Your task to perform on an android device: open a bookmark in the chrome app Image 0: 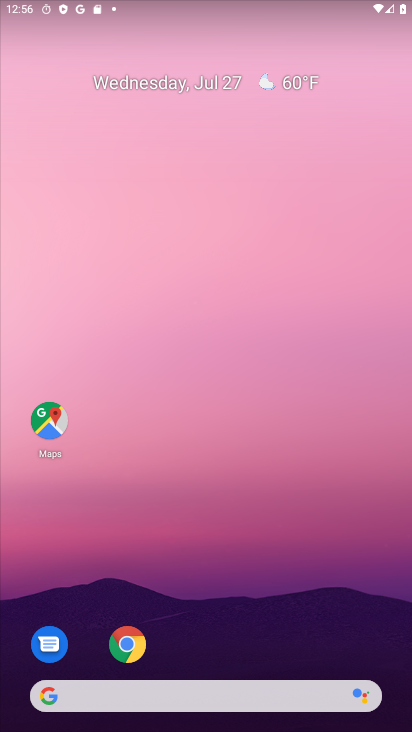
Step 0: drag from (196, 641) to (283, 212)
Your task to perform on an android device: open a bookmark in the chrome app Image 1: 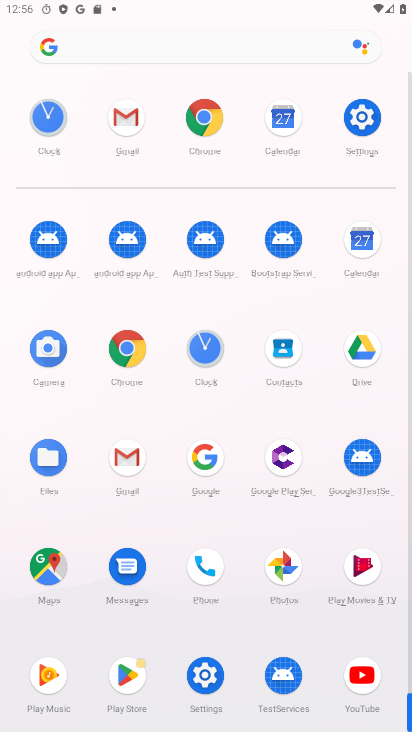
Step 1: click (243, 359)
Your task to perform on an android device: open a bookmark in the chrome app Image 2: 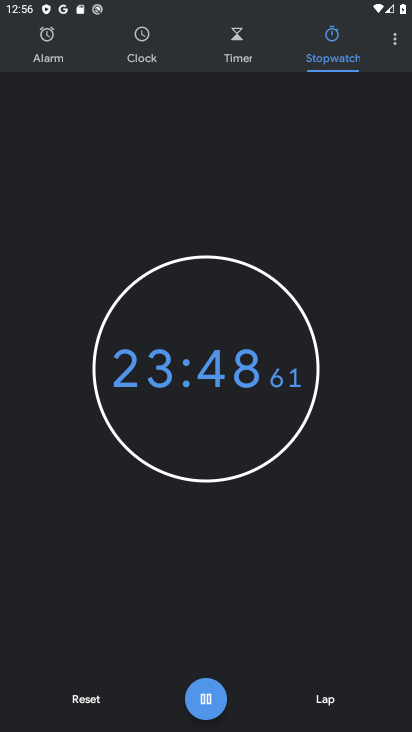
Step 2: click (394, 41)
Your task to perform on an android device: open a bookmark in the chrome app Image 3: 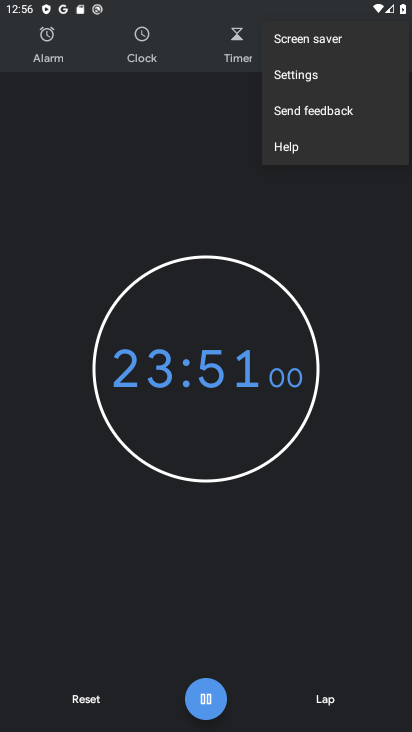
Step 3: press home button
Your task to perform on an android device: open a bookmark in the chrome app Image 4: 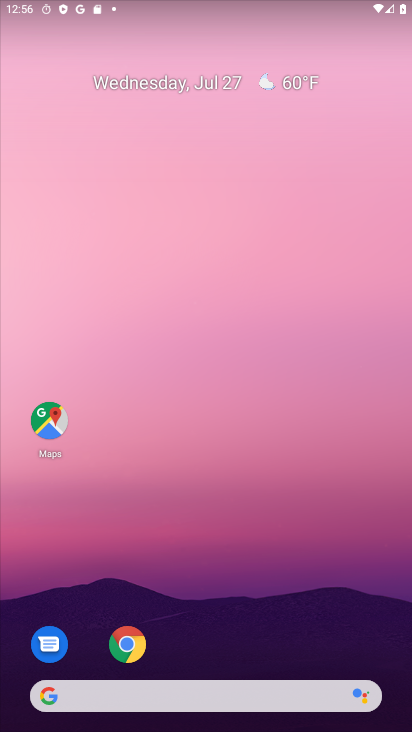
Step 4: drag from (205, 643) to (236, 273)
Your task to perform on an android device: open a bookmark in the chrome app Image 5: 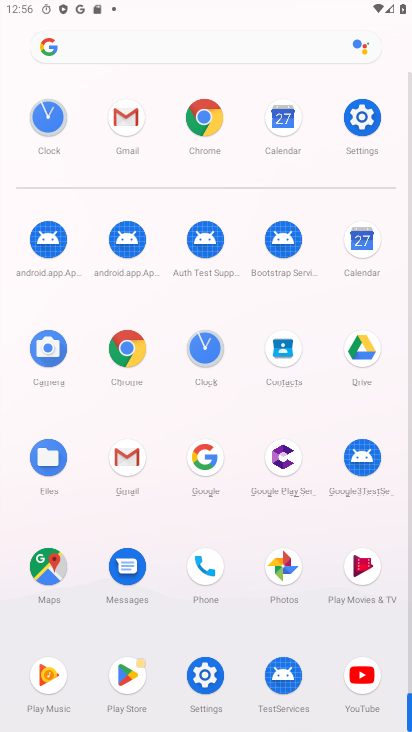
Step 5: click (119, 350)
Your task to perform on an android device: open a bookmark in the chrome app Image 6: 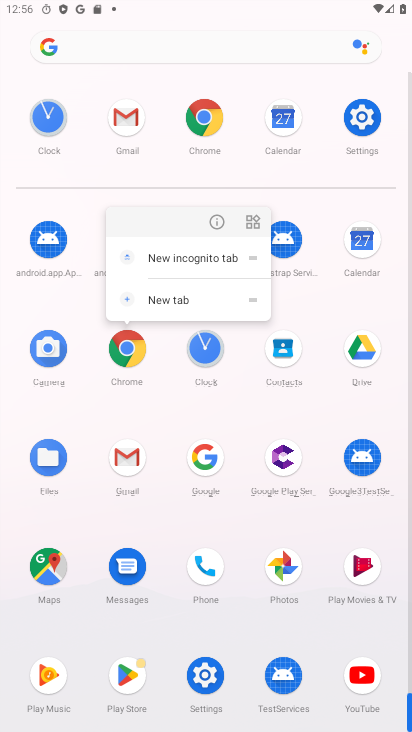
Step 6: click (212, 223)
Your task to perform on an android device: open a bookmark in the chrome app Image 7: 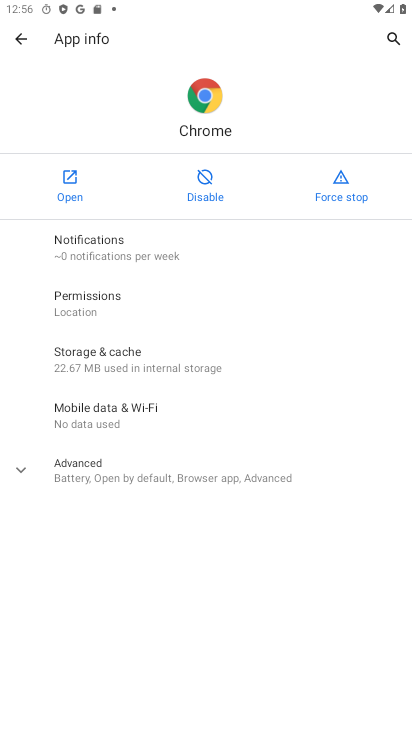
Step 7: click (72, 190)
Your task to perform on an android device: open a bookmark in the chrome app Image 8: 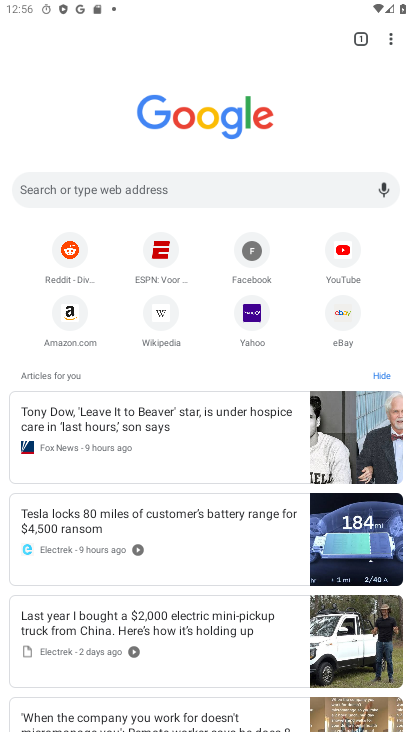
Step 8: task complete